Your task to perform on an android device: turn smart compose on in the gmail app Image 0: 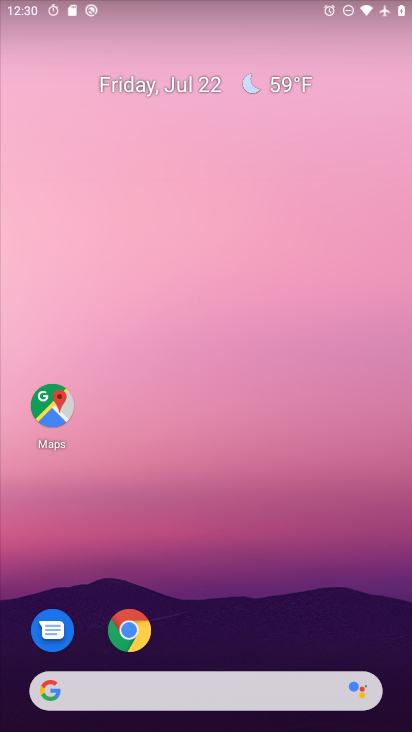
Step 0: press home button
Your task to perform on an android device: turn smart compose on in the gmail app Image 1: 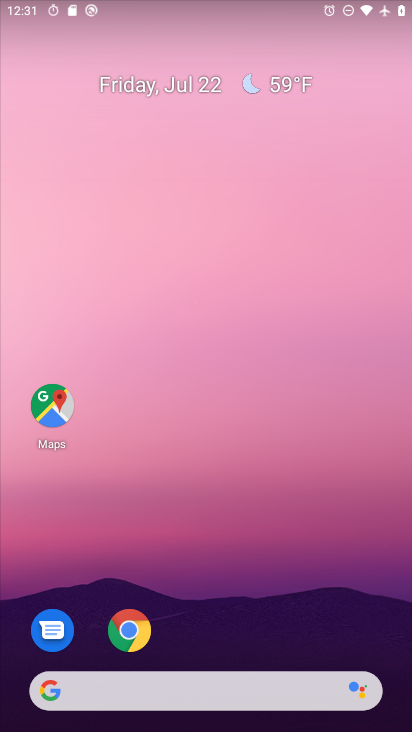
Step 1: drag from (220, 643) to (275, 154)
Your task to perform on an android device: turn smart compose on in the gmail app Image 2: 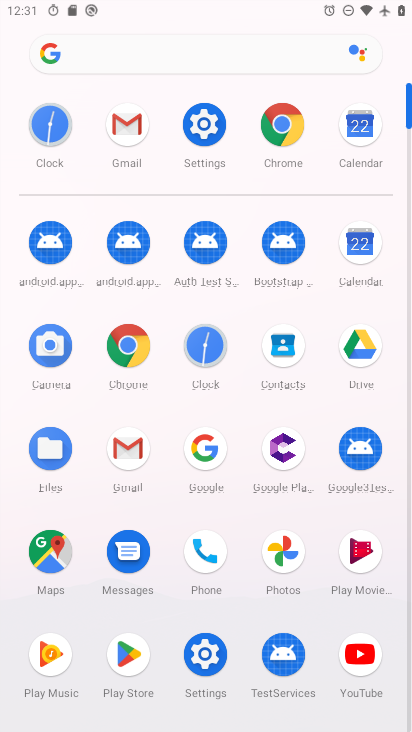
Step 2: click (130, 453)
Your task to perform on an android device: turn smart compose on in the gmail app Image 3: 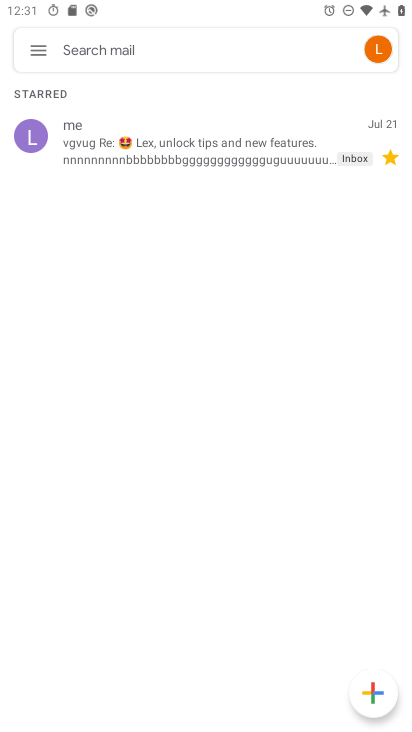
Step 3: click (24, 50)
Your task to perform on an android device: turn smart compose on in the gmail app Image 4: 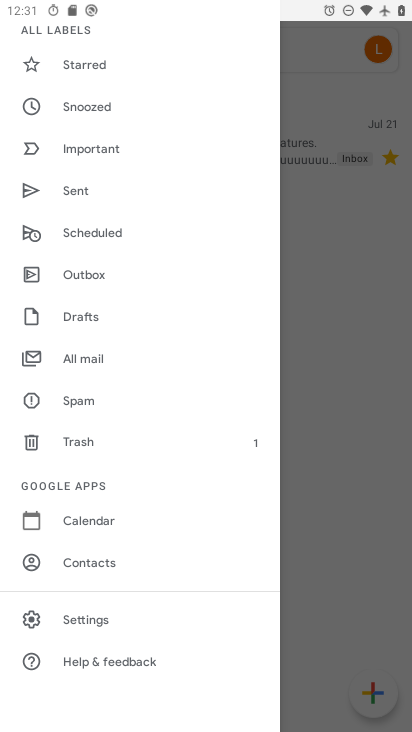
Step 4: click (87, 615)
Your task to perform on an android device: turn smart compose on in the gmail app Image 5: 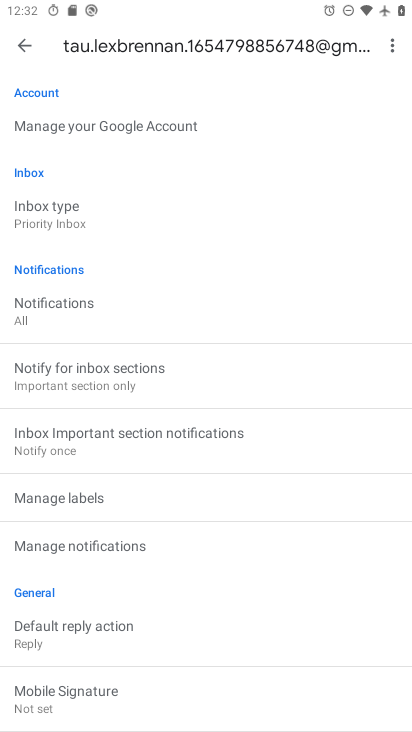
Step 5: task complete